Your task to perform on an android device: Show me popular games on the Play Store Image 0: 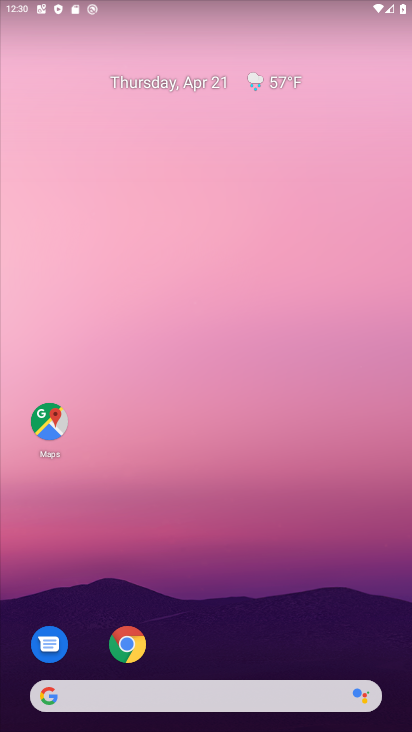
Step 0: drag from (193, 671) to (136, 47)
Your task to perform on an android device: Show me popular games on the Play Store Image 1: 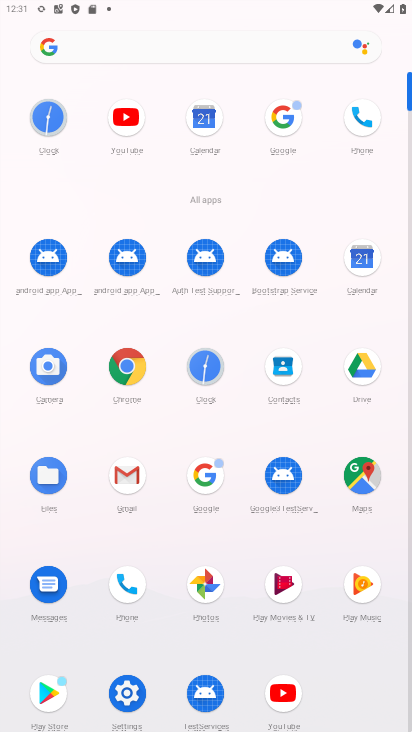
Step 1: click (46, 696)
Your task to perform on an android device: Show me popular games on the Play Store Image 2: 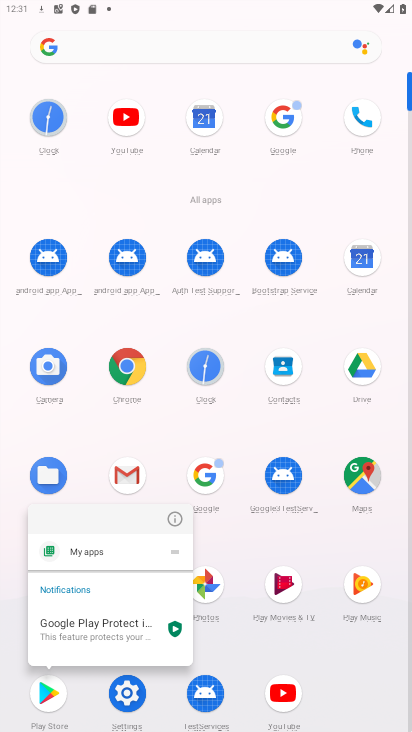
Step 2: click (50, 688)
Your task to perform on an android device: Show me popular games on the Play Store Image 3: 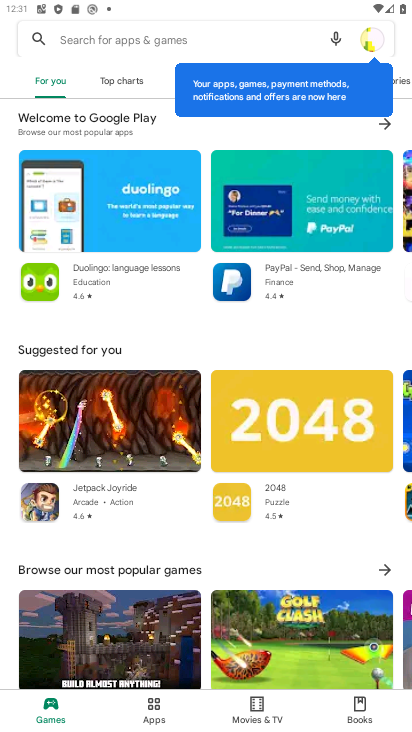
Step 3: click (59, 704)
Your task to perform on an android device: Show me popular games on the Play Store Image 4: 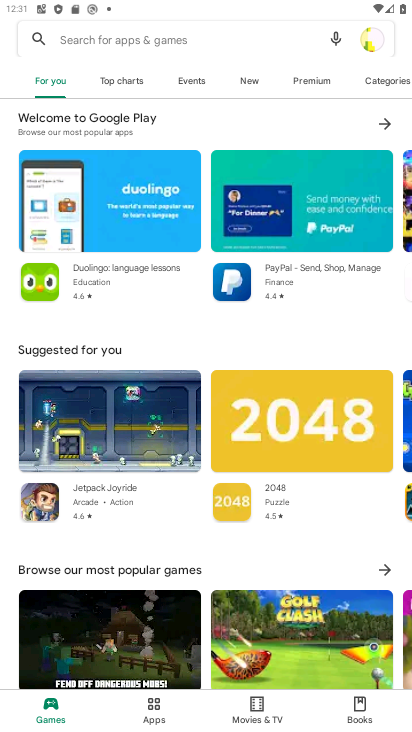
Step 4: drag from (166, 581) to (158, 223)
Your task to perform on an android device: Show me popular games on the Play Store Image 5: 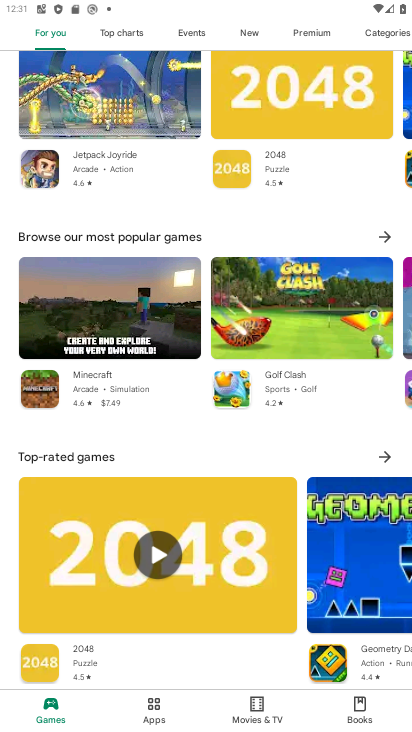
Step 5: drag from (323, 441) to (114, 418)
Your task to perform on an android device: Show me popular games on the Play Store Image 6: 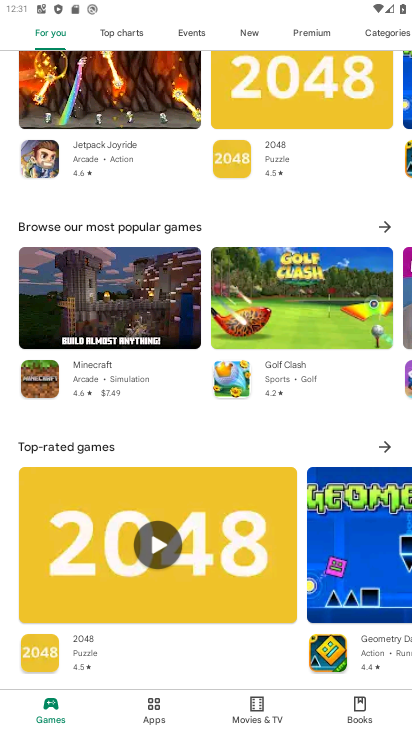
Step 6: click (382, 225)
Your task to perform on an android device: Show me popular games on the Play Store Image 7: 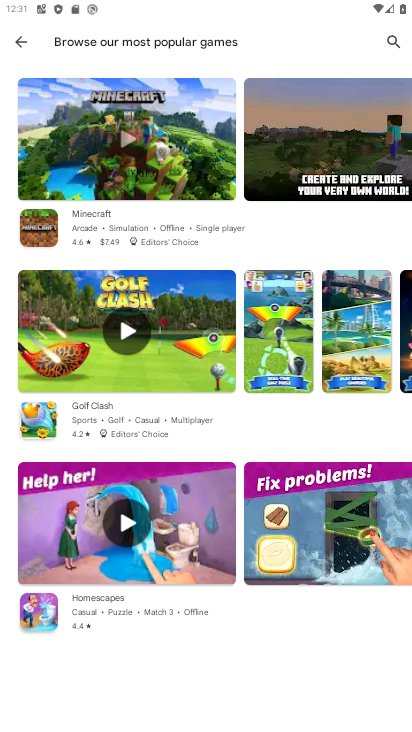
Step 7: task complete